Your task to perform on an android device: open chrome and create a bookmark for the current page Image 0: 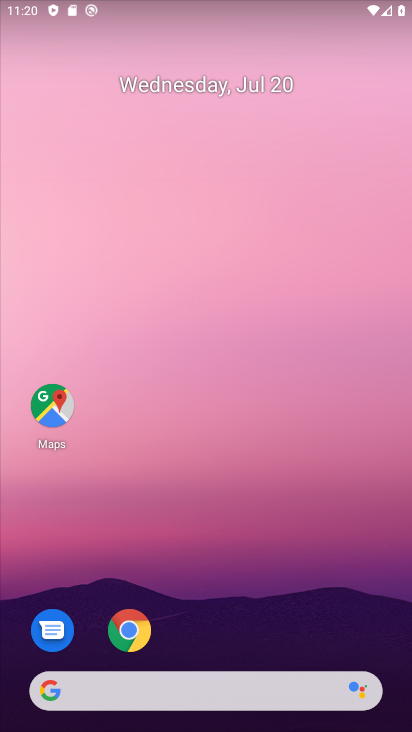
Step 0: click (108, 613)
Your task to perform on an android device: open chrome and create a bookmark for the current page Image 1: 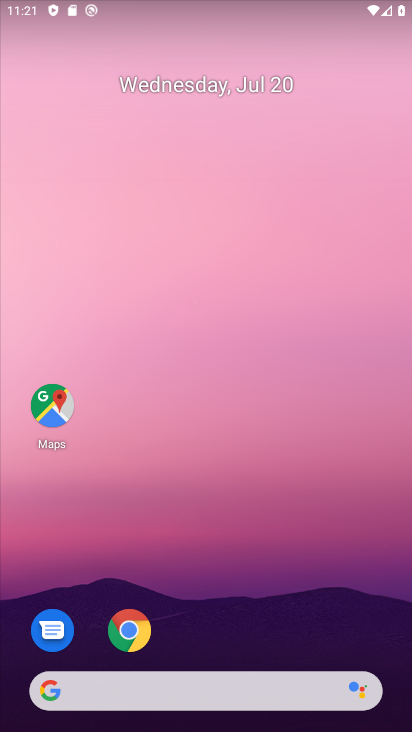
Step 1: click (146, 630)
Your task to perform on an android device: open chrome and create a bookmark for the current page Image 2: 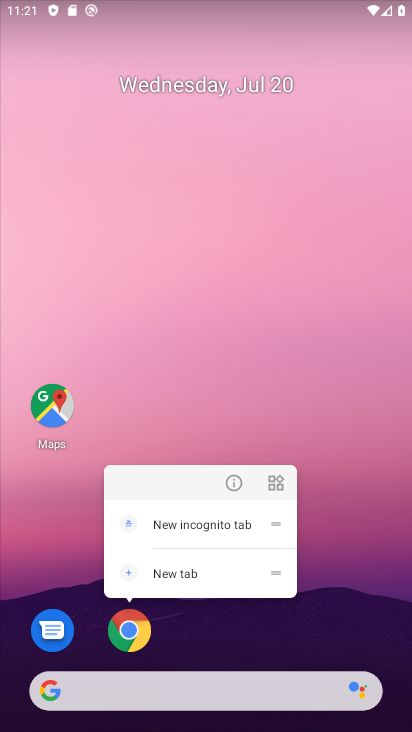
Step 2: click (135, 643)
Your task to perform on an android device: open chrome and create a bookmark for the current page Image 3: 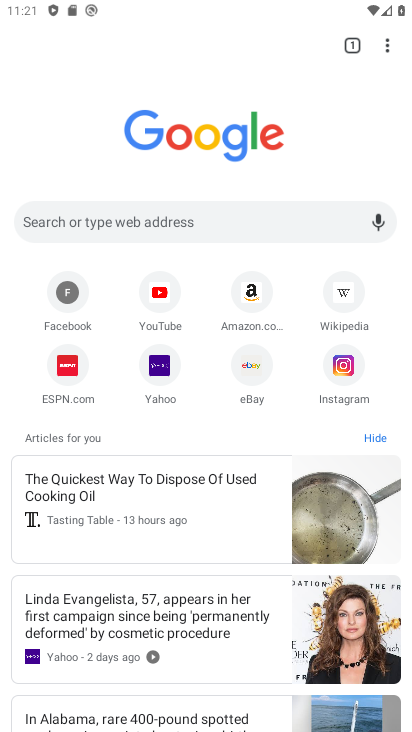
Step 3: click (389, 49)
Your task to perform on an android device: open chrome and create a bookmark for the current page Image 4: 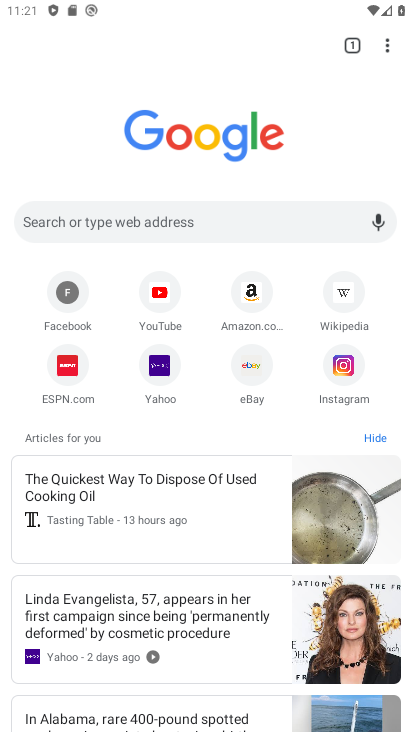
Step 4: click (388, 44)
Your task to perform on an android device: open chrome and create a bookmark for the current page Image 5: 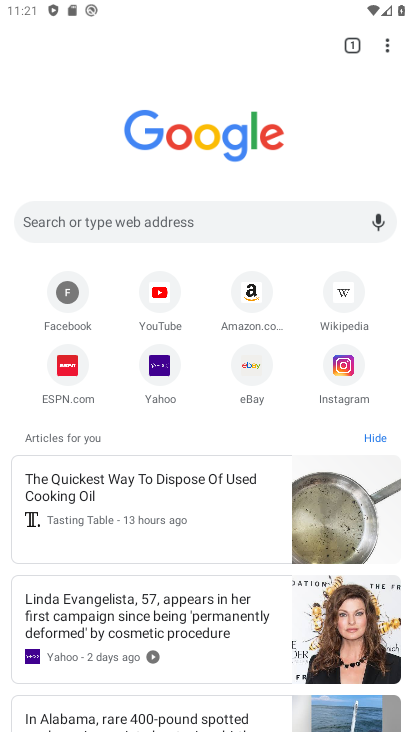
Step 5: click (388, 44)
Your task to perform on an android device: open chrome and create a bookmark for the current page Image 6: 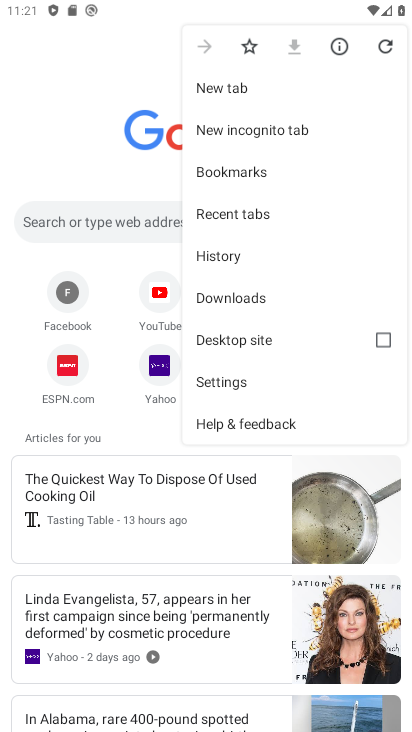
Step 6: click (247, 40)
Your task to perform on an android device: open chrome and create a bookmark for the current page Image 7: 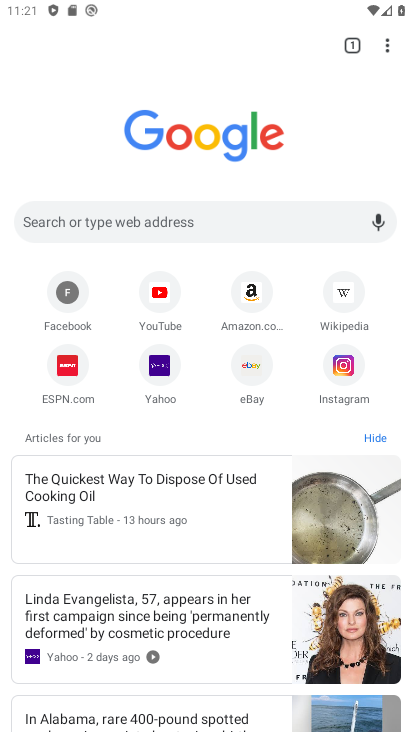
Step 7: task complete